Your task to perform on an android device: turn on translation in the chrome app Image 0: 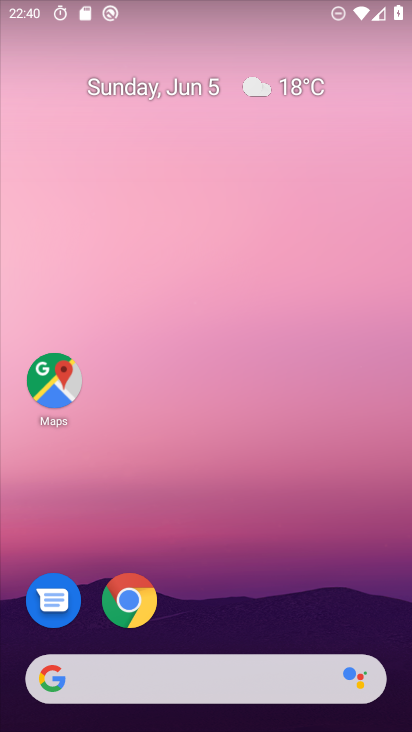
Step 0: click (129, 603)
Your task to perform on an android device: turn on translation in the chrome app Image 1: 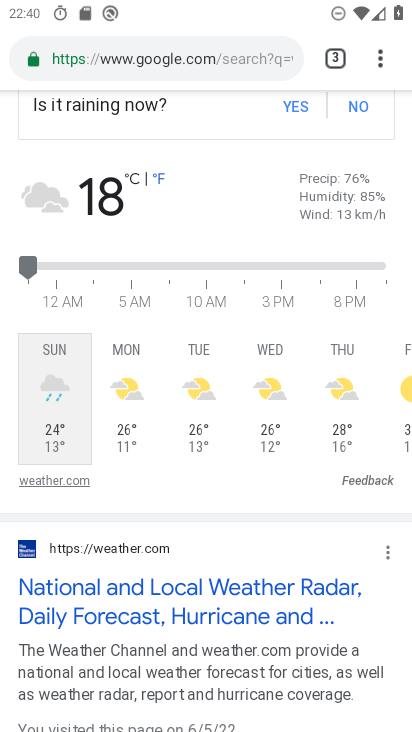
Step 1: drag from (382, 60) to (210, 640)
Your task to perform on an android device: turn on translation in the chrome app Image 2: 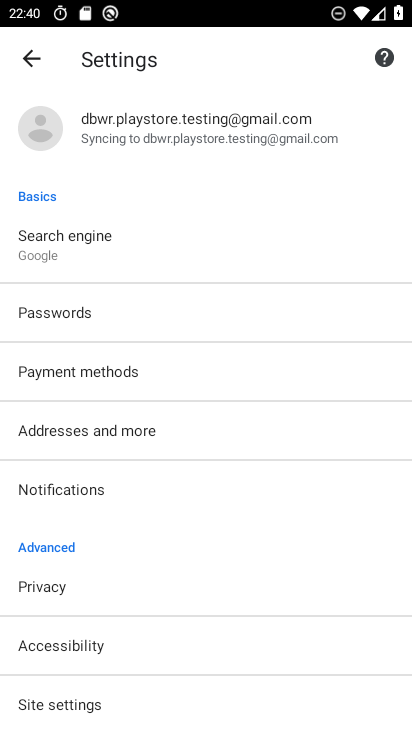
Step 2: drag from (175, 580) to (173, 109)
Your task to perform on an android device: turn on translation in the chrome app Image 3: 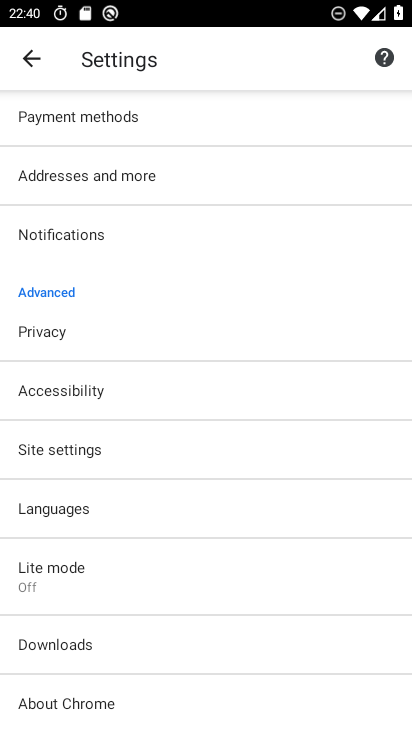
Step 3: click (97, 525)
Your task to perform on an android device: turn on translation in the chrome app Image 4: 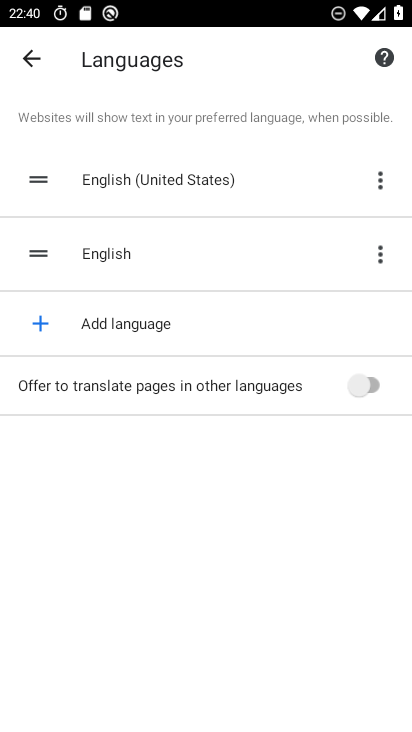
Step 4: click (389, 382)
Your task to perform on an android device: turn on translation in the chrome app Image 5: 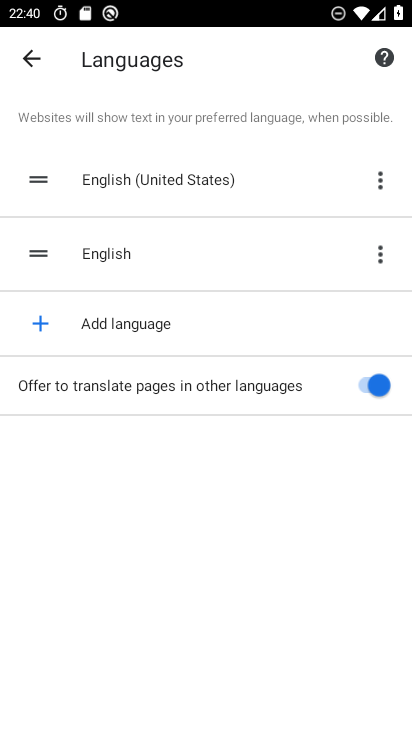
Step 5: task complete